Your task to perform on an android device: check storage Image 0: 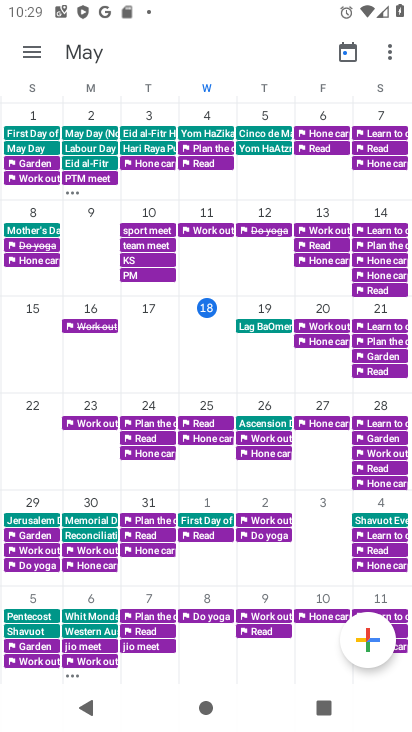
Step 0: press home button
Your task to perform on an android device: check storage Image 1: 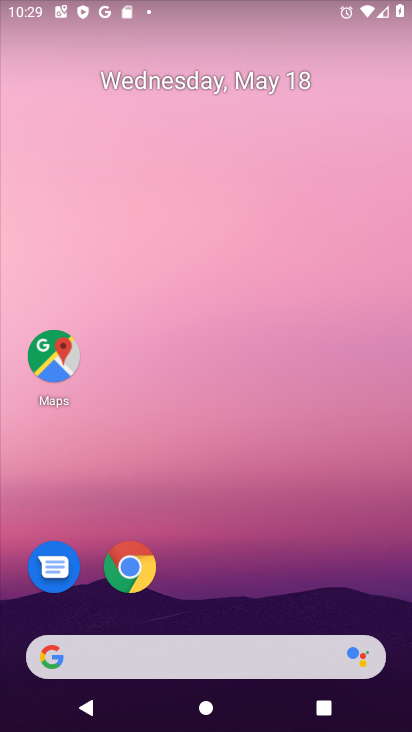
Step 1: drag from (208, 640) to (299, 226)
Your task to perform on an android device: check storage Image 2: 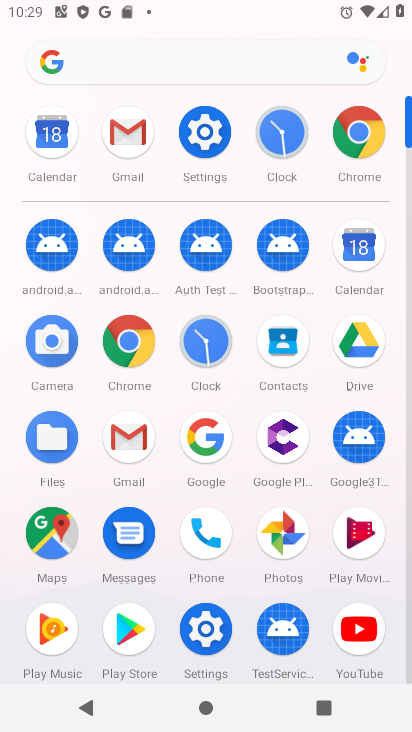
Step 2: click (206, 121)
Your task to perform on an android device: check storage Image 3: 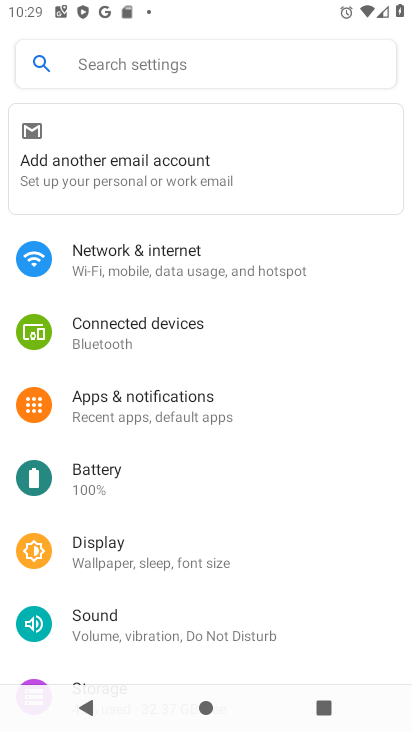
Step 3: drag from (147, 587) to (81, 4)
Your task to perform on an android device: check storage Image 4: 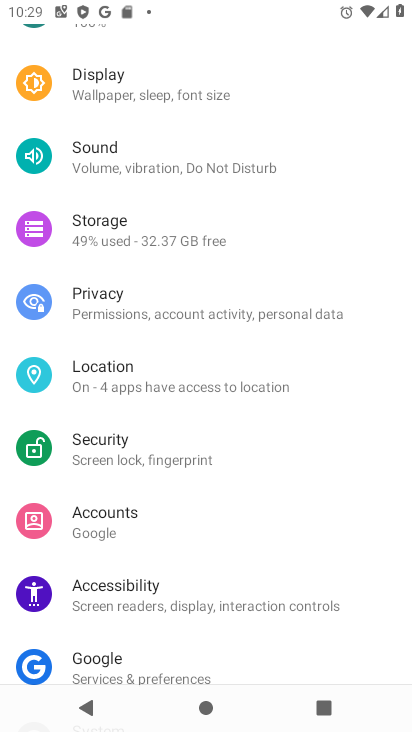
Step 4: click (91, 225)
Your task to perform on an android device: check storage Image 5: 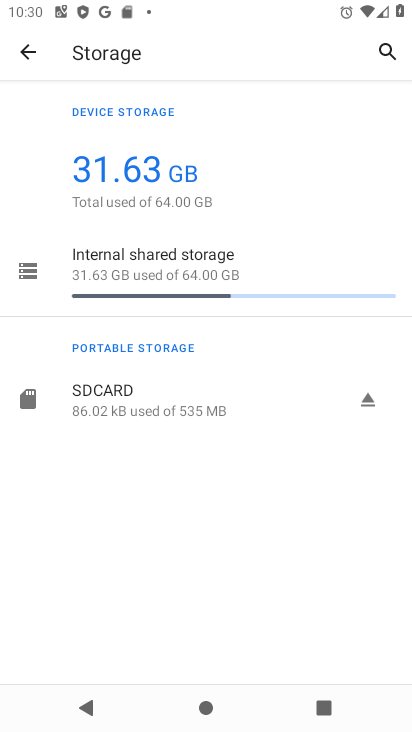
Step 5: click (240, 281)
Your task to perform on an android device: check storage Image 6: 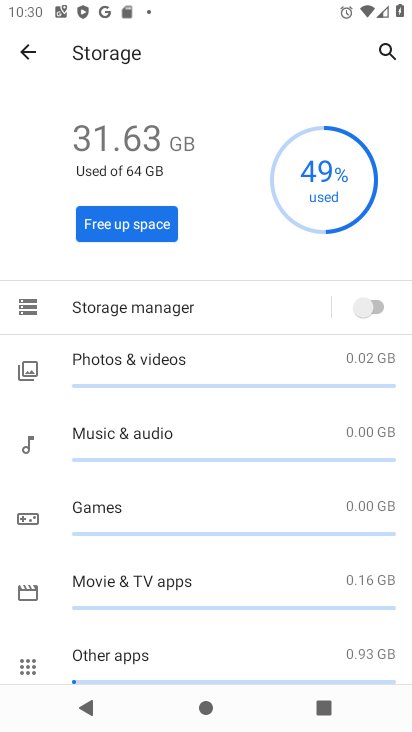
Step 6: task complete